Your task to perform on an android device: Open Google Image 0: 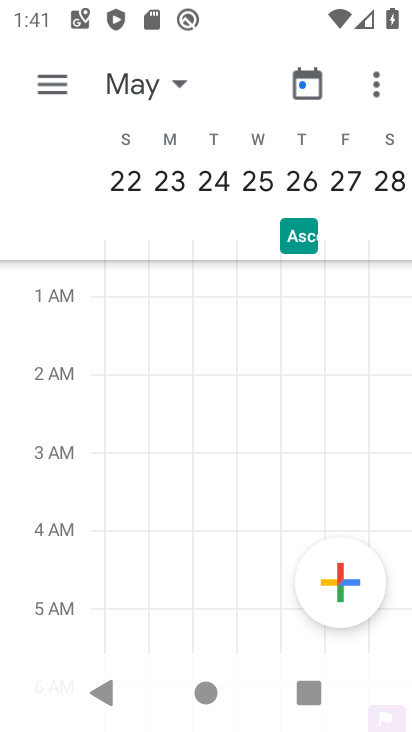
Step 0: press home button
Your task to perform on an android device: Open Google Image 1: 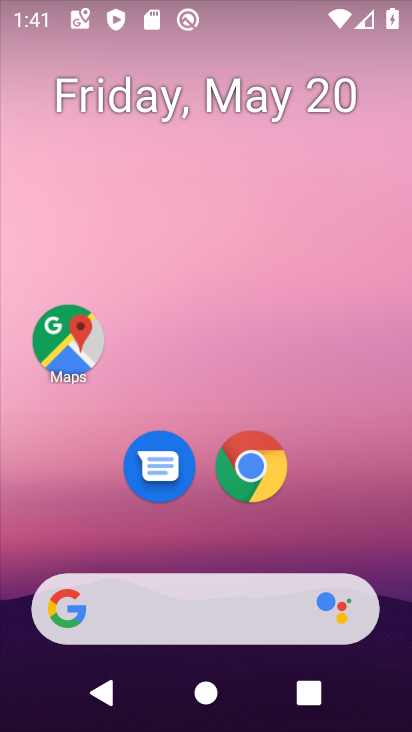
Step 1: click (222, 577)
Your task to perform on an android device: Open Google Image 2: 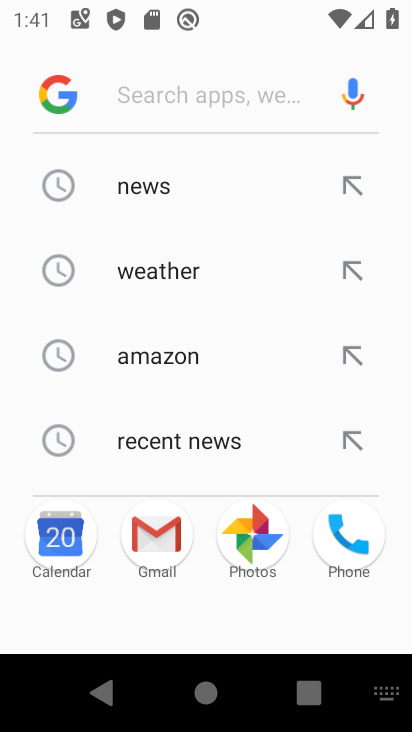
Step 2: task complete